Your task to perform on an android device: change the clock display to digital Image 0: 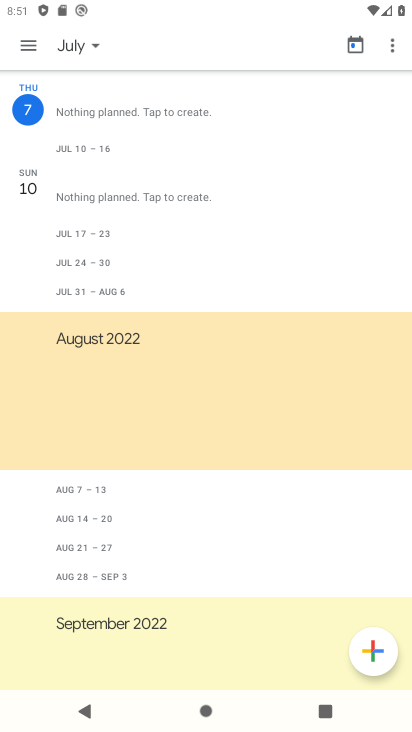
Step 0: press home button
Your task to perform on an android device: change the clock display to digital Image 1: 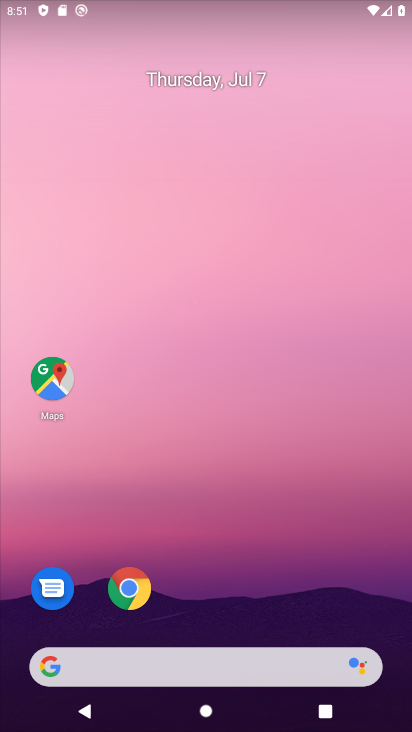
Step 1: drag from (207, 605) to (239, 19)
Your task to perform on an android device: change the clock display to digital Image 2: 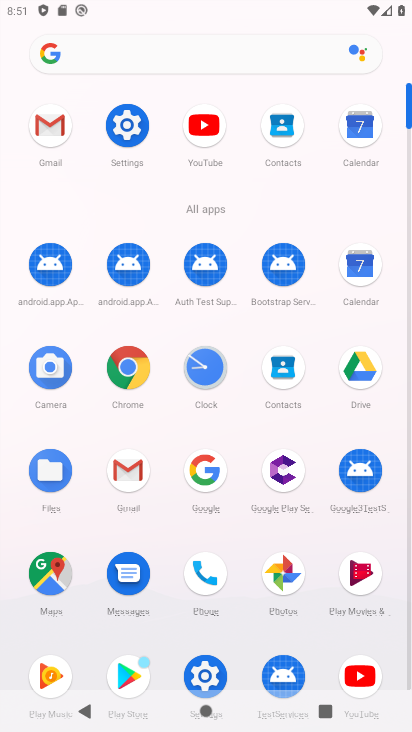
Step 2: click (203, 357)
Your task to perform on an android device: change the clock display to digital Image 3: 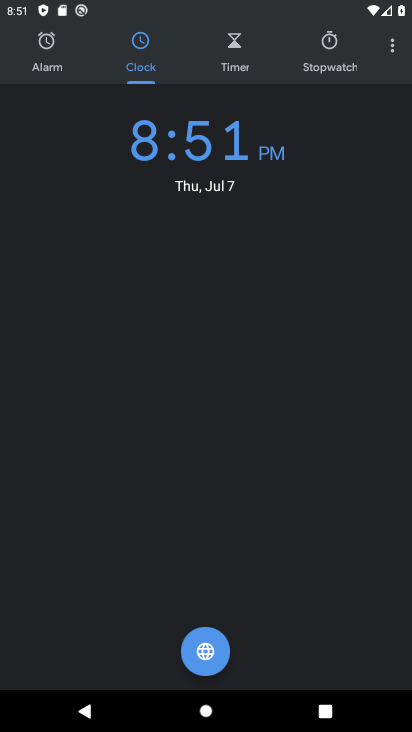
Step 3: click (391, 42)
Your task to perform on an android device: change the clock display to digital Image 4: 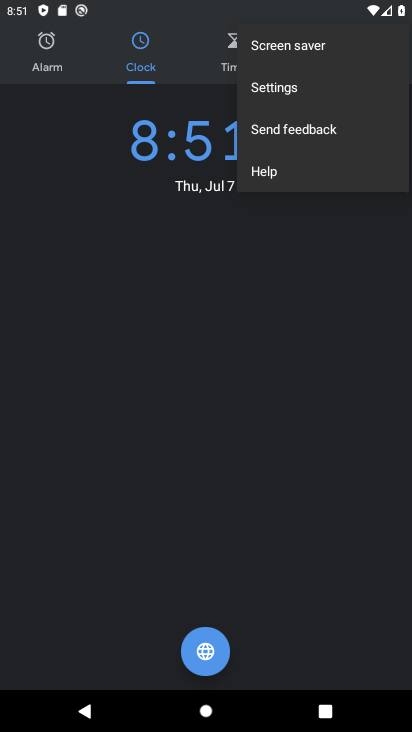
Step 4: click (287, 92)
Your task to perform on an android device: change the clock display to digital Image 5: 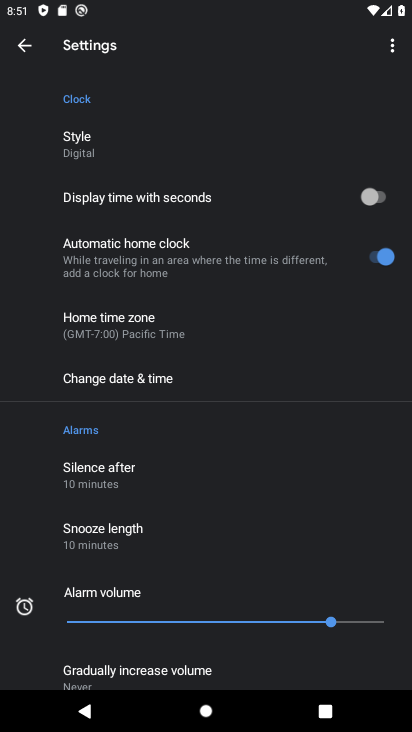
Step 5: click (107, 138)
Your task to perform on an android device: change the clock display to digital Image 6: 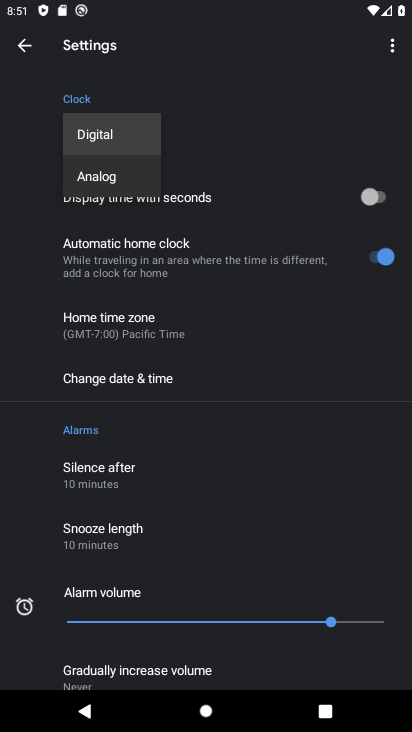
Step 6: click (125, 135)
Your task to perform on an android device: change the clock display to digital Image 7: 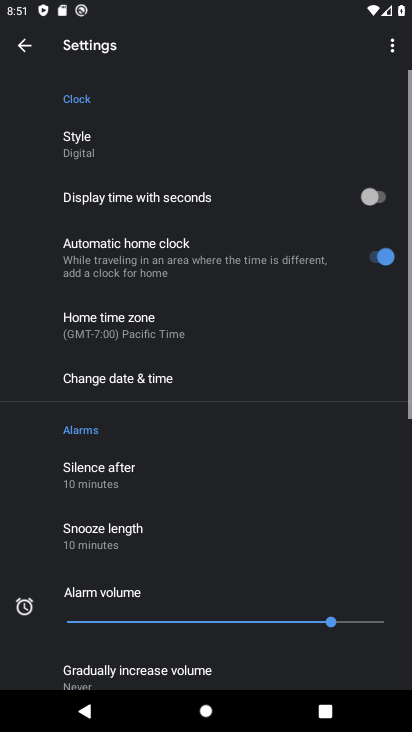
Step 7: task complete